Your task to perform on an android device: turn pop-ups off in chrome Image 0: 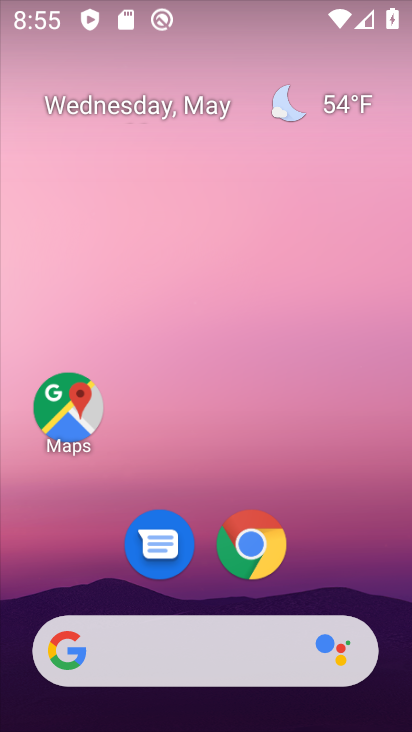
Step 0: click (259, 540)
Your task to perform on an android device: turn pop-ups off in chrome Image 1: 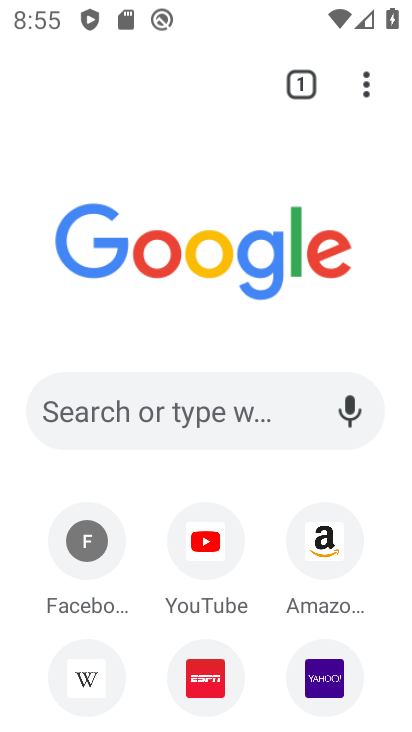
Step 1: click (373, 79)
Your task to perform on an android device: turn pop-ups off in chrome Image 2: 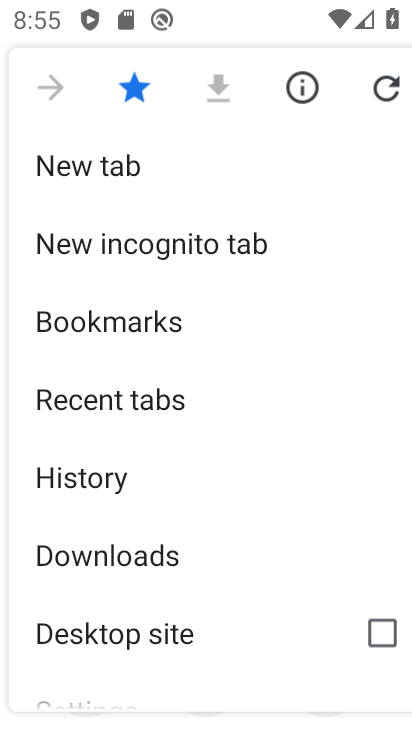
Step 2: drag from (58, 653) to (207, 85)
Your task to perform on an android device: turn pop-ups off in chrome Image 3: 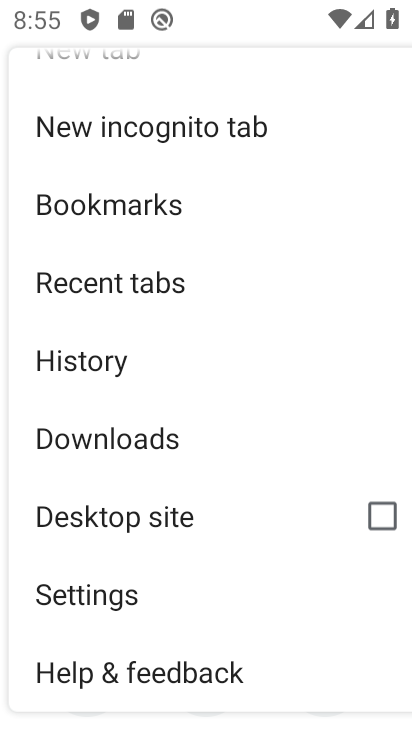
Step 3: drag from (149, 563) to (304, 9)
Your task to perform on an android device: turn pop-ups off in chrome Image 4: 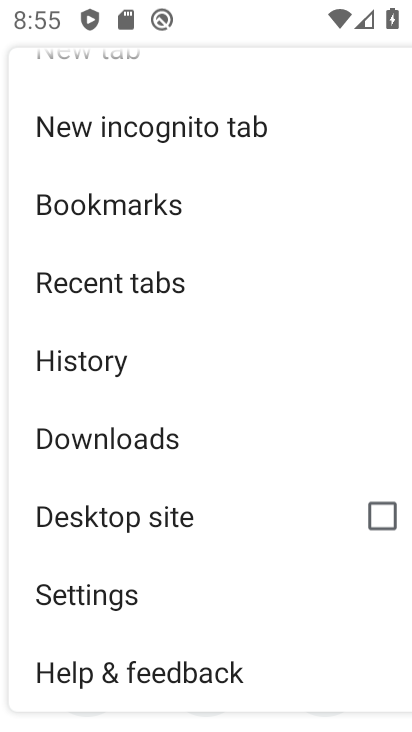
Step 4: click (84, 594)
Your task to perform on an android device: turn pop-ups off in chrome Image 5: 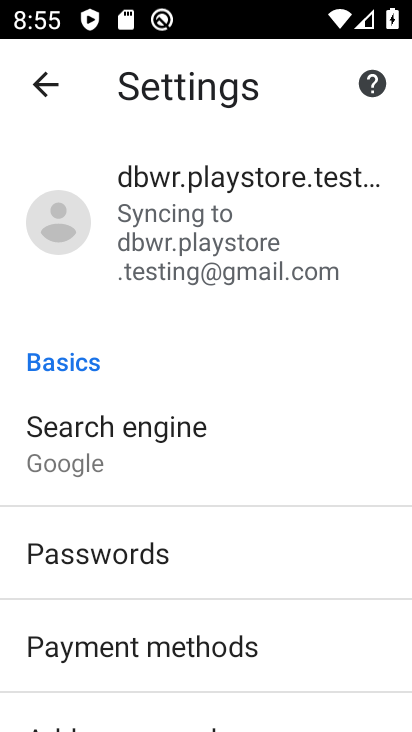
Step 5: drag from (160, 652) to (214, 202)
Your task to perform on an android device: turn pop-ups off in chrome Image 6: 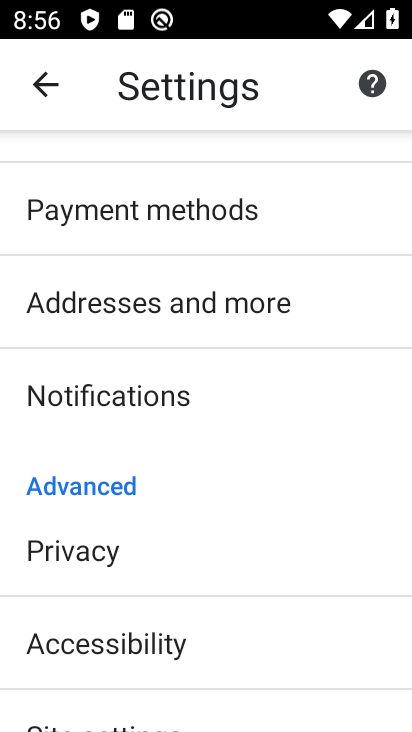
Step 6: drag from (90, 539) to (191, 150)
Your task to perform on an android device: turn pop-ups off in chrome Image 7: 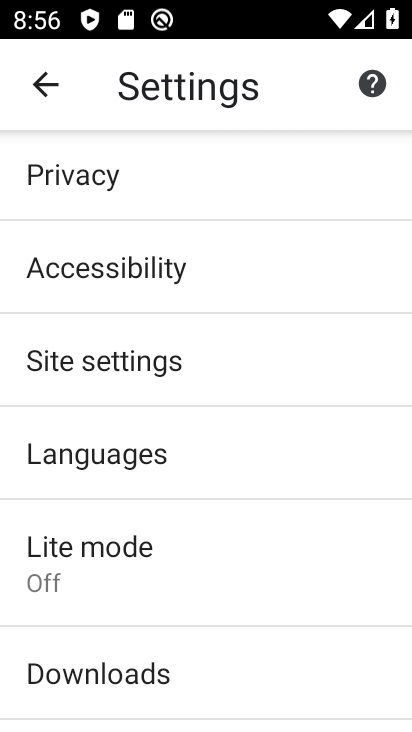
Step 7: drag from (124, 566) to (185, 307)
Your task to perform on an android device: turn pop-ups off in chrome Image 8: 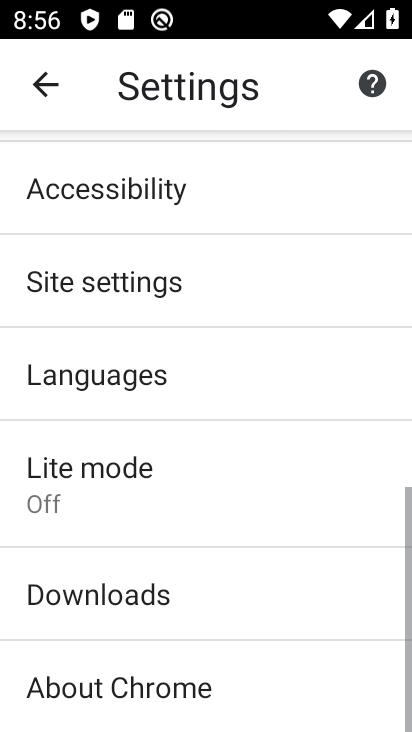
Step 8: click (182, 298)
Your task to perform on an android device: turn pop-ups off in chrome Image 9: 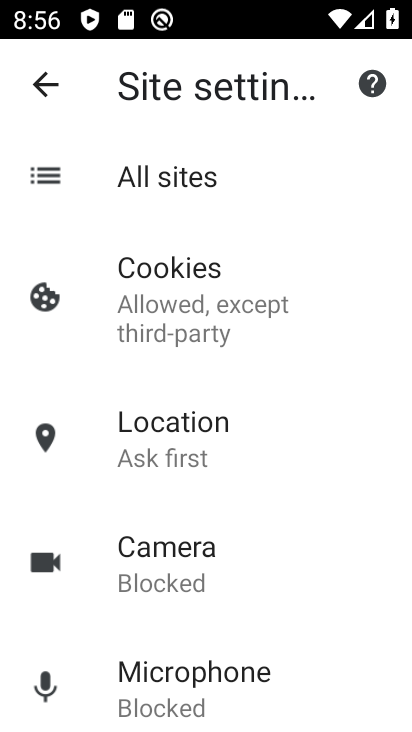
Step 9: drag from (176, 601) to (302, 122)
Your task to perform on an android device: turn pop-ups off in chrome Image 10: 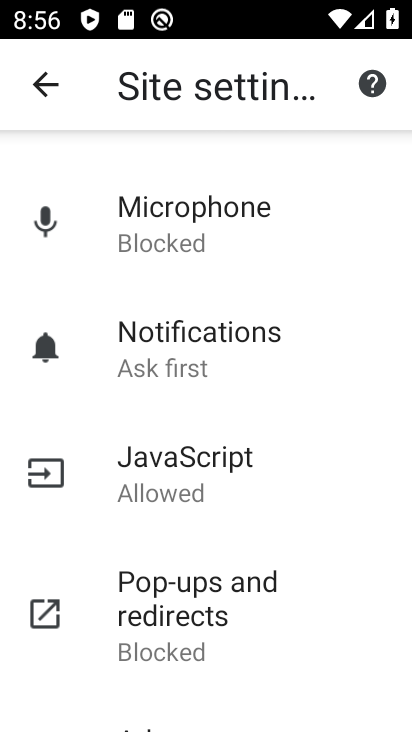
Step 10: click (202, 660)
Your task to perform on an android device: turn pop-ups off in chrome Image 11: 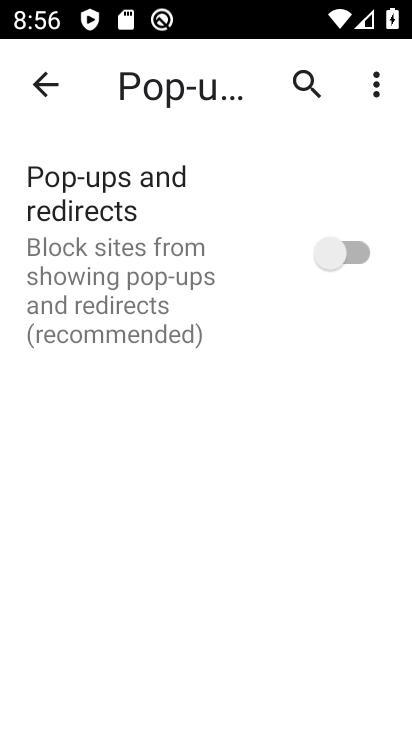
Step 11: task complete